Your task to perform on an android device: toggle location history Image 0: 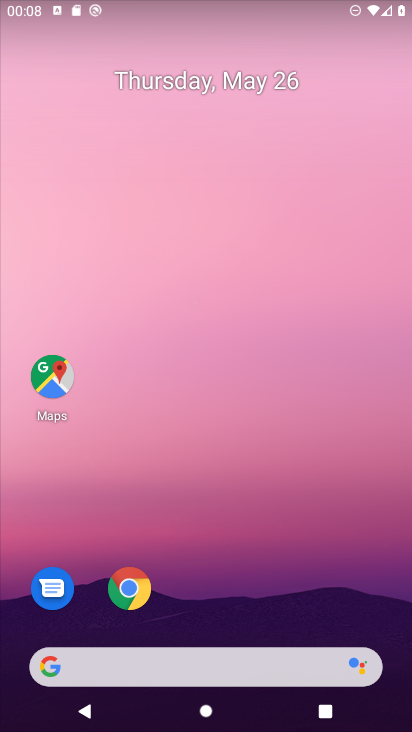
Step 0: press home button
Your task to perform on an android device: toggle location history Image 1: 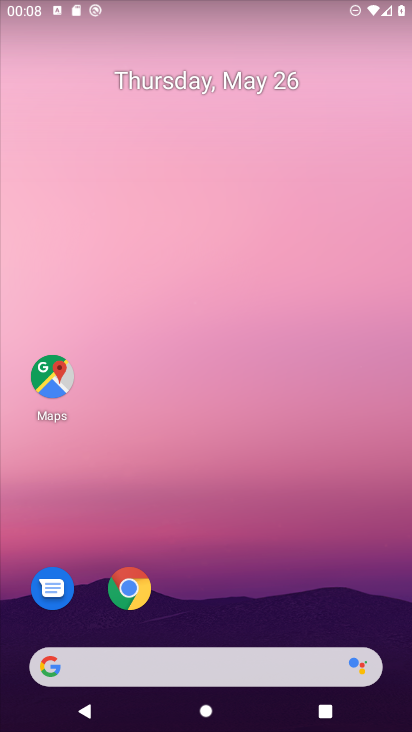
Step 1: drag from (19, 432) to (228, 195)
Your task to perform on an android device: toggle location history Image 2: 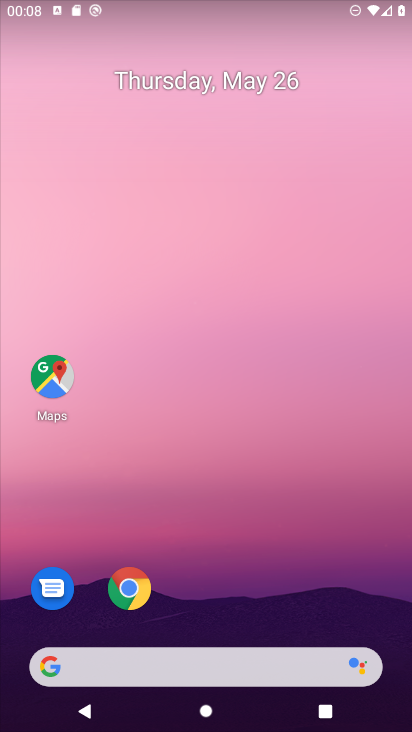
Step 2: drag from (28, 608) to (200, 189)
Your task to perform on an android device: toggle location history Image 3: 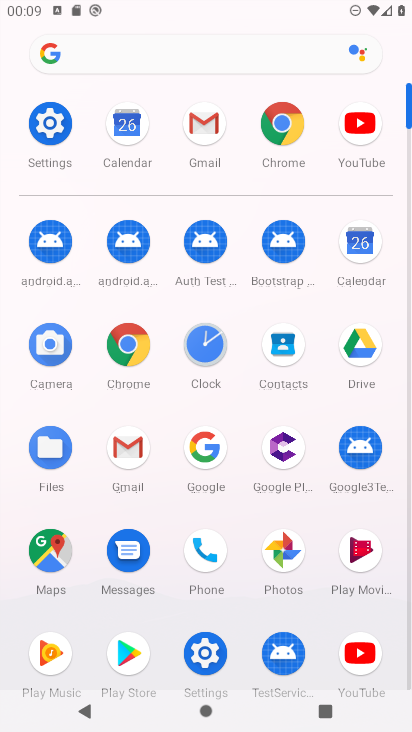
Step 3: click (46, 134)
Your task to perform on an android device: toggle location history Image 4: 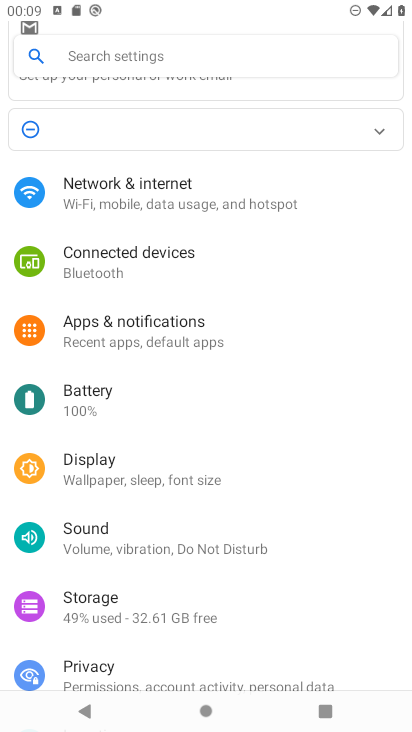
Step 4: drag from (10, 611) to (196, 159)
Your task to perform on an android device: toggle location history Image 5: 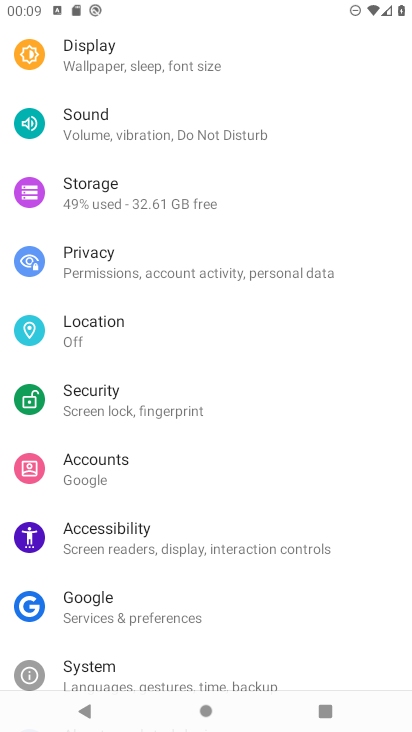
Step 5: click (104, 320)
Your task to perform on an android device: toggle location history Image 6: 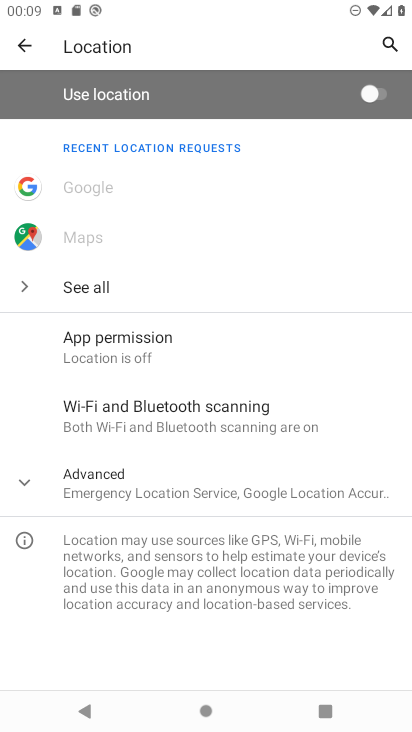
Step 6: click (318, 494)
Your task to perform on an android device: toggle location history Image 7: 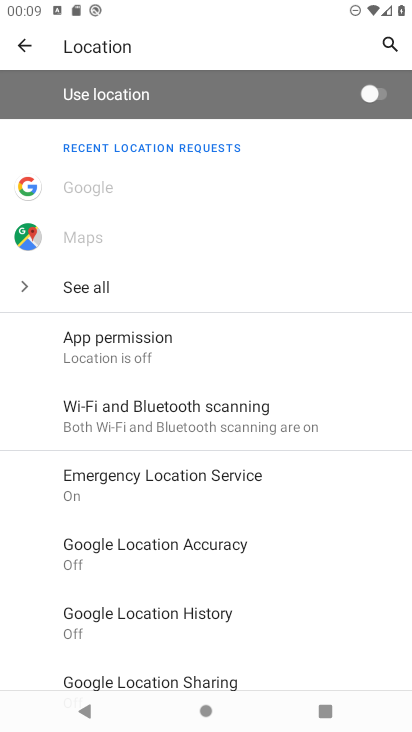
Step 7: click (171, 610)
Your task to perform on an android device: toggle location history Image 8: 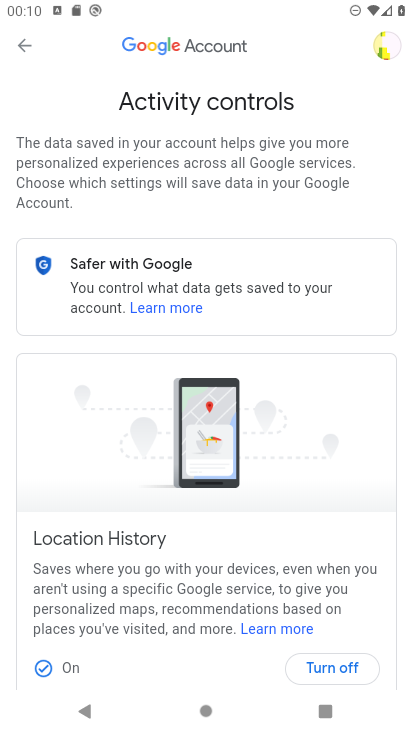
Step 8: click (337, 671)
Your task to perform on an android device: toggle location history Image 9: 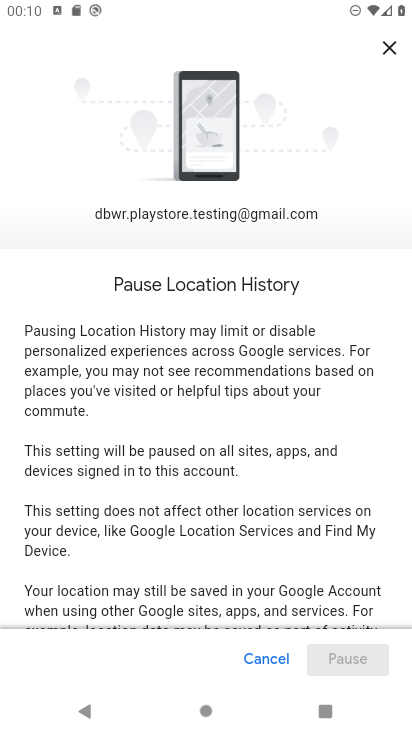
Step 9: drag from (95, 616) to (258, 226)
Your task to perform on an android device: toggle location history Image 10: 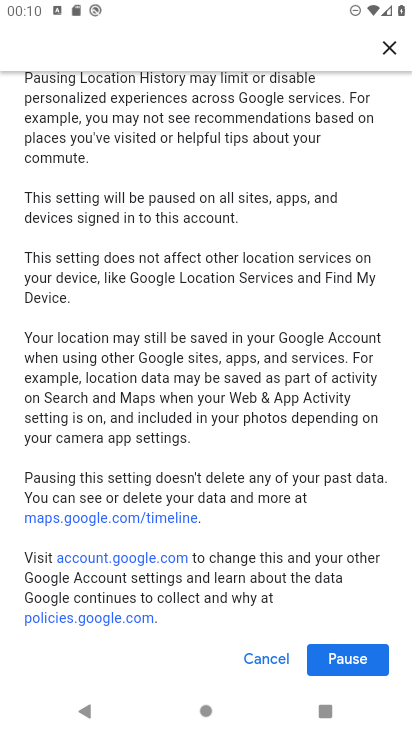
Step 10: click (360, 661)
Your task to perform on an android device: toggle location history Image 11: 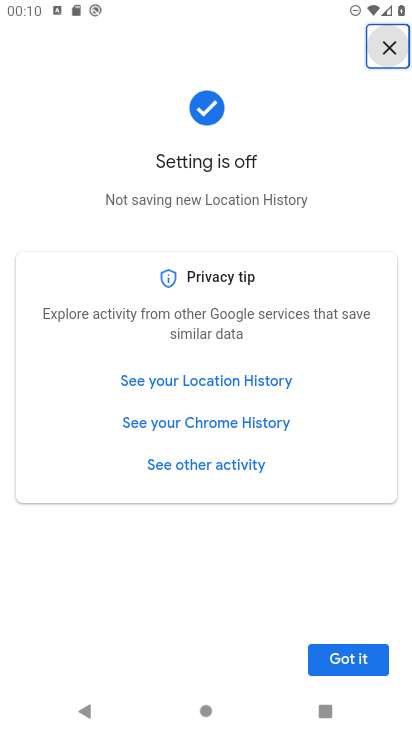
Step 11: task complete